Your task to perform on an android device: turn off airplane mode Image 0: 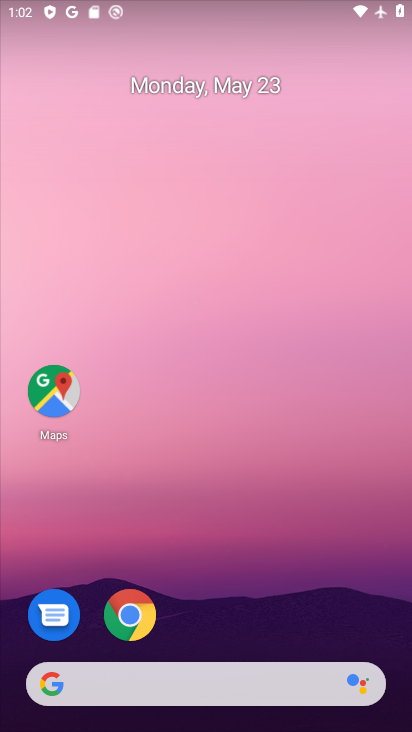
Step 0: drag from (201, 648) to (178, 318)
Your task to perform on an android device: turn off airplane mode Image 1: 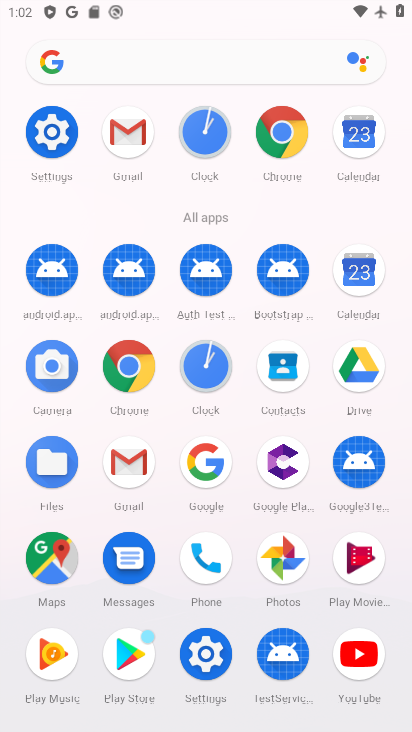
Step 1: click (53, 127)
Your task to perform on an android device: turn off airplane mode Image 2: 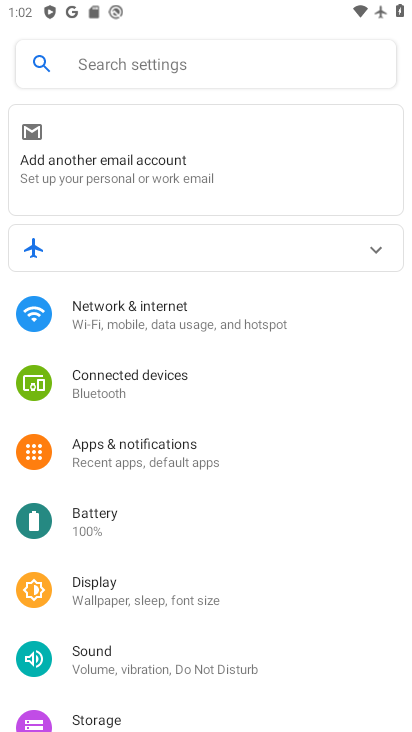
Step 2: click (221, 225)
Your task to perform on an android device: turn off airplane mode Image 3: 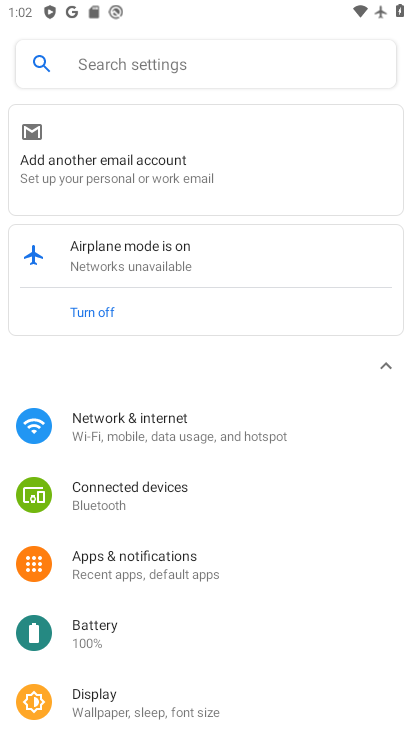
Step 3: click (101, 303)
Your task to perform on an android device: turn off airplane mode Image 4: 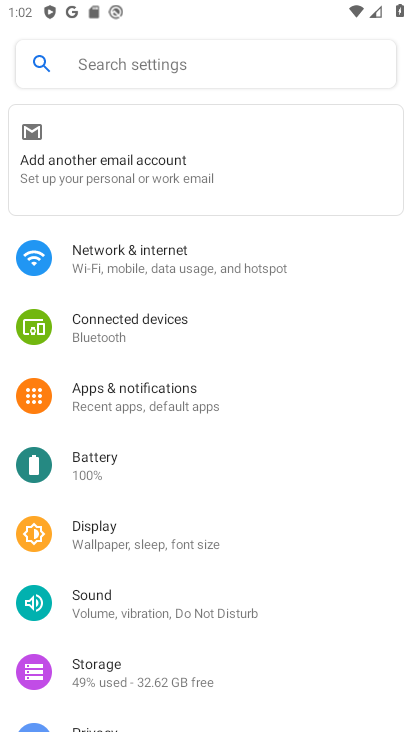
Step 4: task complete